Your task to perform on an android device: open app "ColorNote Notepad Notes" (install if not already installed) Image 0: 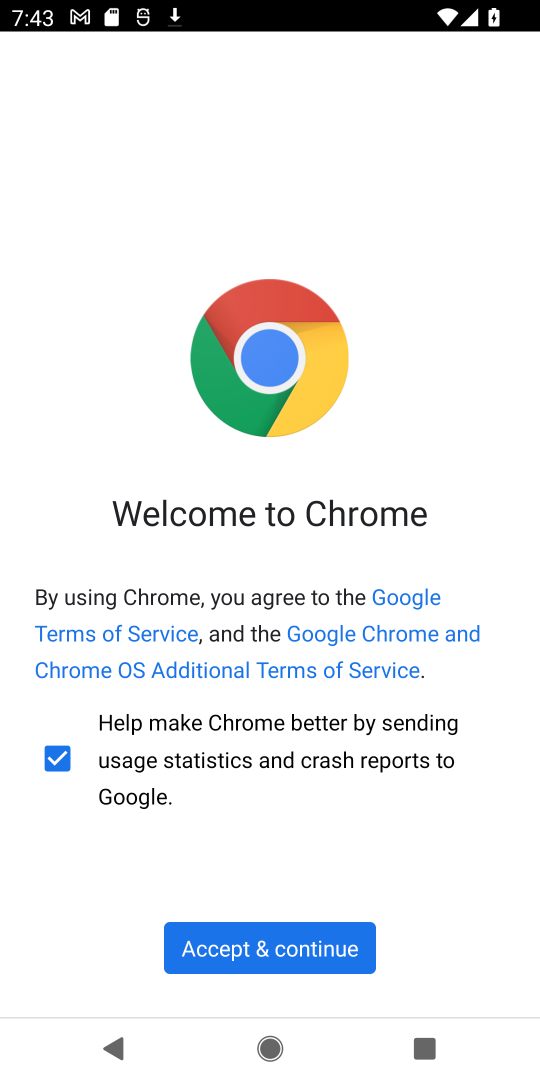
Step 0: press home button
Your task to perform on an android device: open app "ColorNote Notepad Notes" (install if not already installed) Image 1: 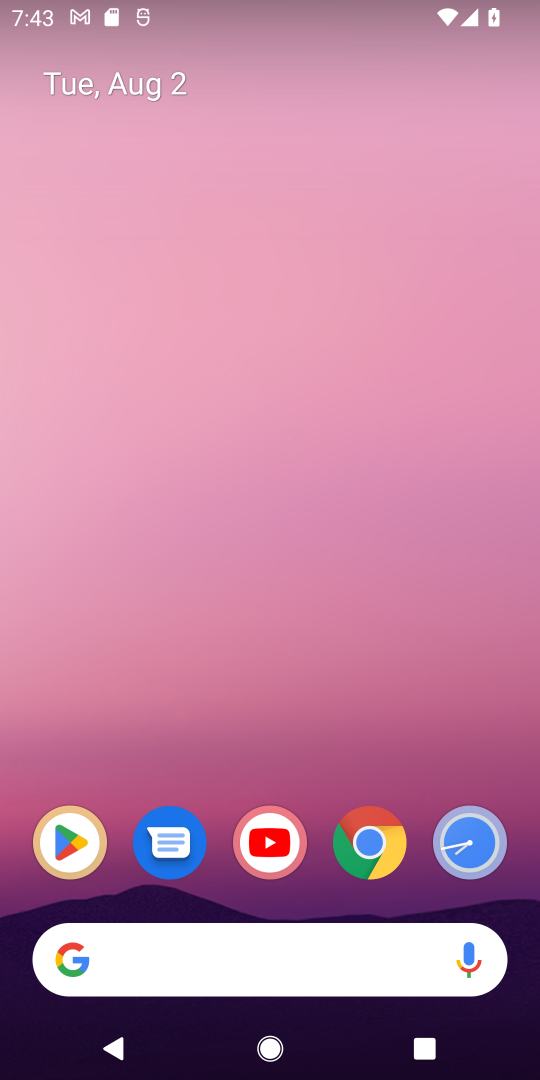
Step 1: click (68, 826)
Your task to perform on an android device: open app "ColorNote Notepad Notes" (install if not already installed) Image 2: 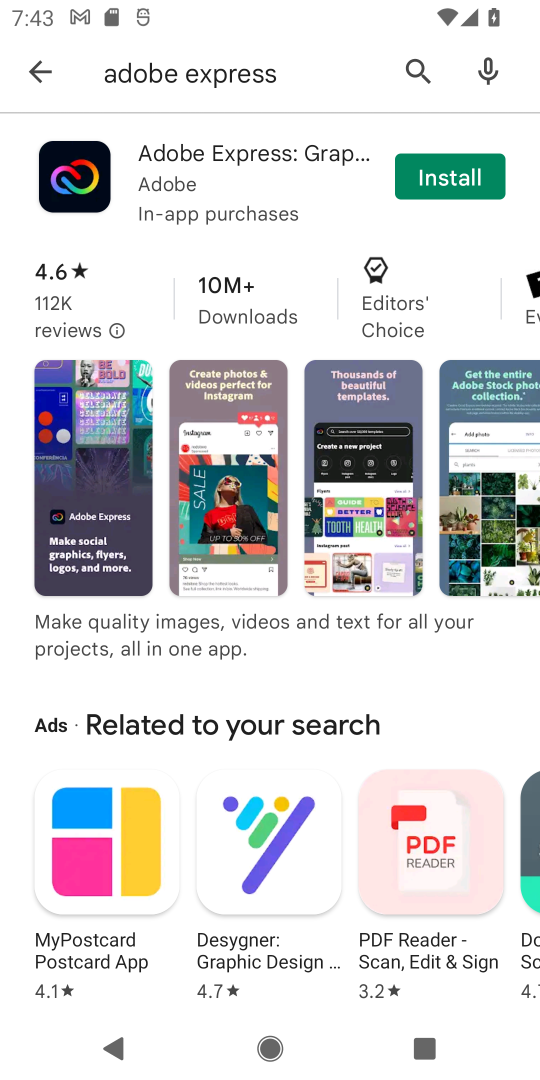
Step 2: click (223, 74)
Your task to perform on an android device: open app "ColorNote Notepad Notes" (install if not already installed) Image 3: 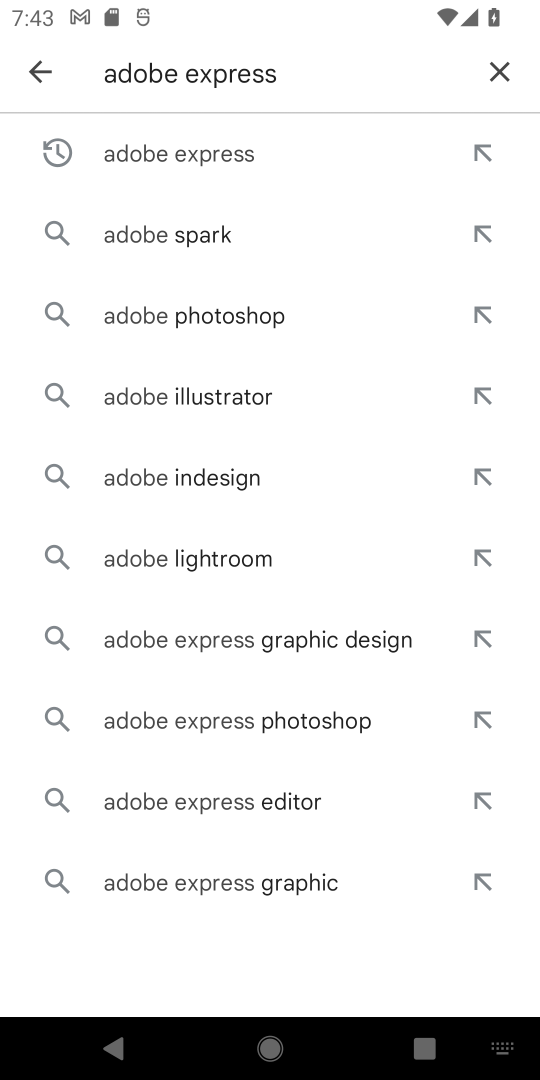
Step 3: click (493, 70)
Your task to perform on an android device: open app "ColorNote Notepad Notes" (install if not already installed) Image 4: 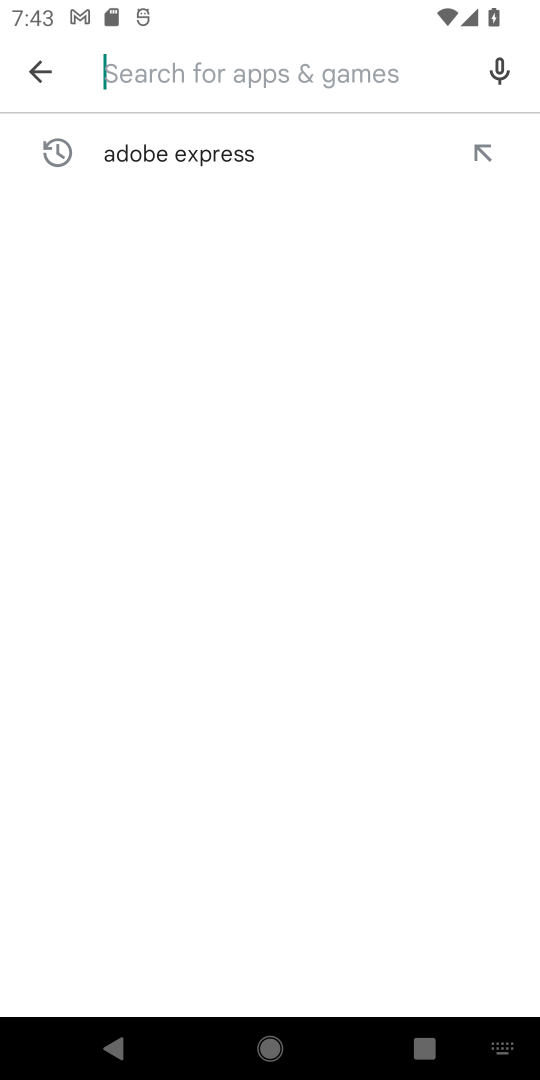
Step 4: type "colornote notrepad notes"
Your task to perform on an android device: open app "ColorNote Notepad Notes" (install if not already installed) Image 5: 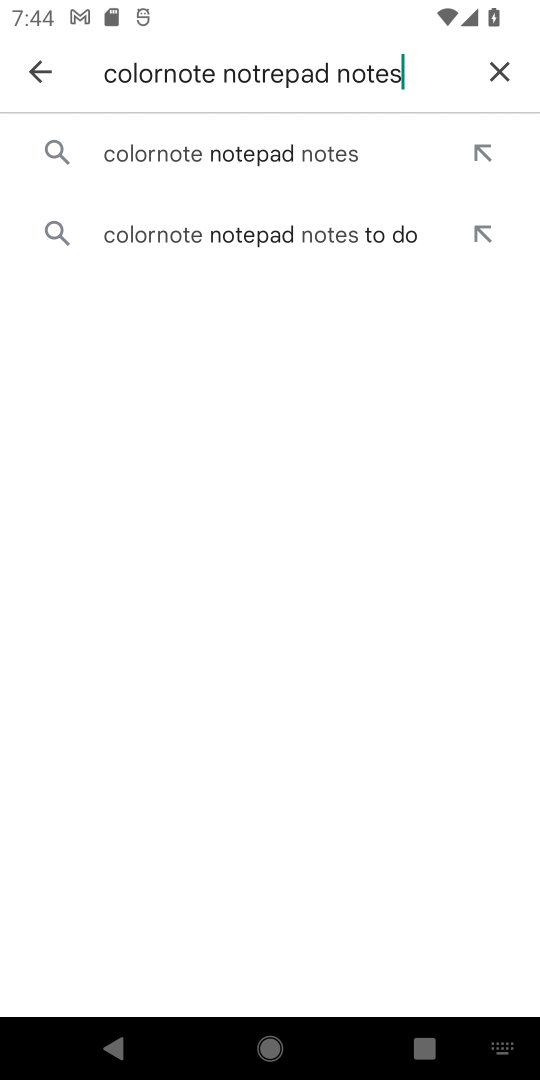
Step 5: click (163, 175)
Your task to perform on an android device: open app "ColorNote Notepad Notes" (install if not already installed) Image 6: 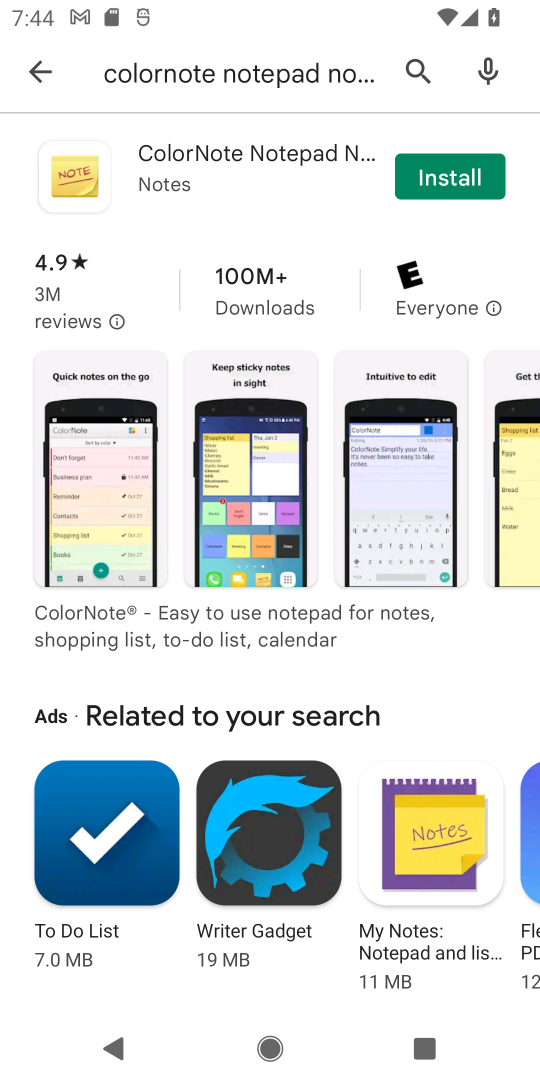
Step 6: click (462, 185)
Your task to perform on an android device: open app "ColorNote Notepad Notes" (install if not already installed) Image 7: 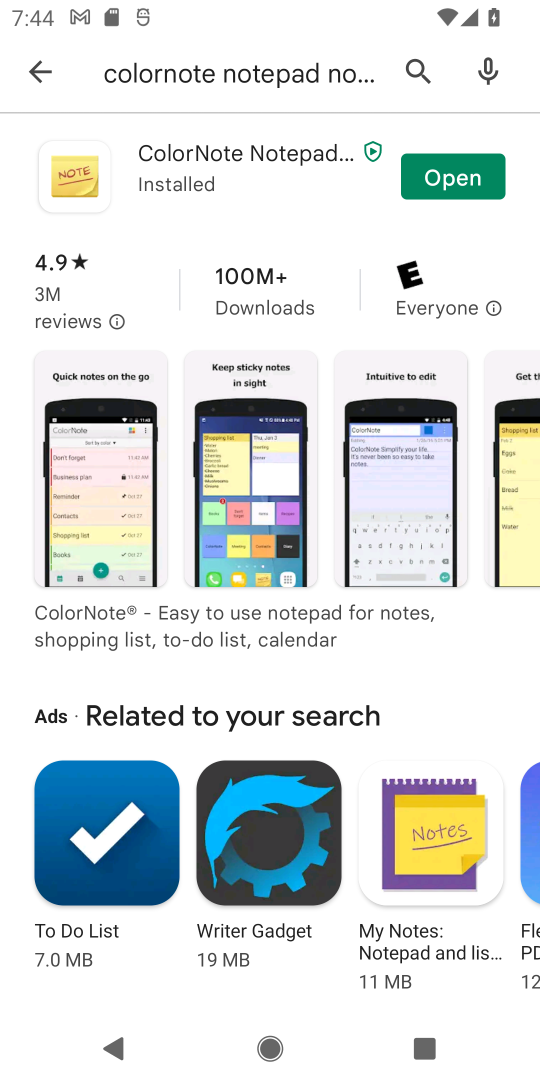
Step 7: click (419, 168)
Your task to perform on an android device: open app "ColorNote Notepad Notes" (install if not already installed) Image 8: 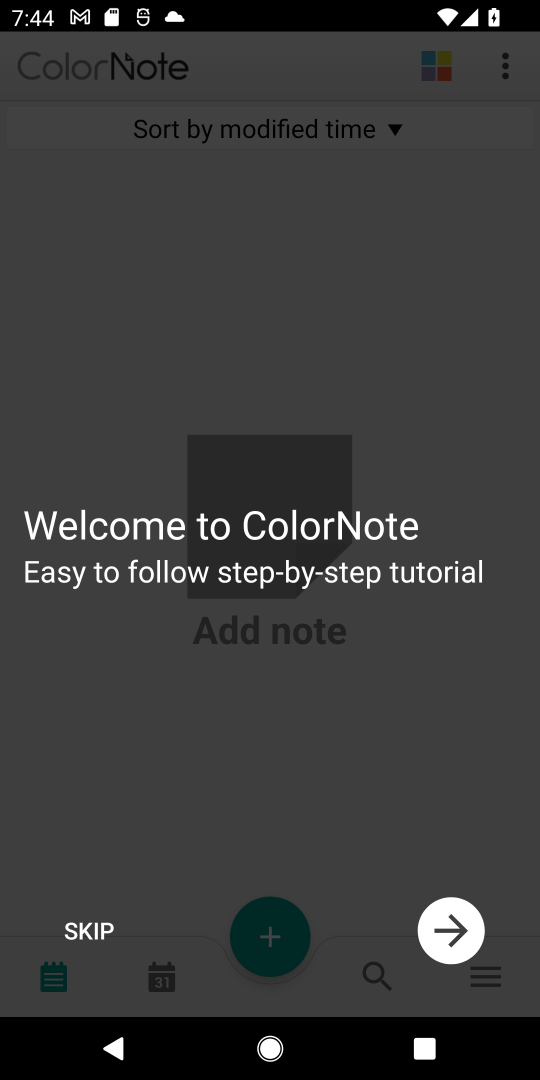
Step 8: task complete